Your task to perform on an android device: Go to Android settings Image 0: 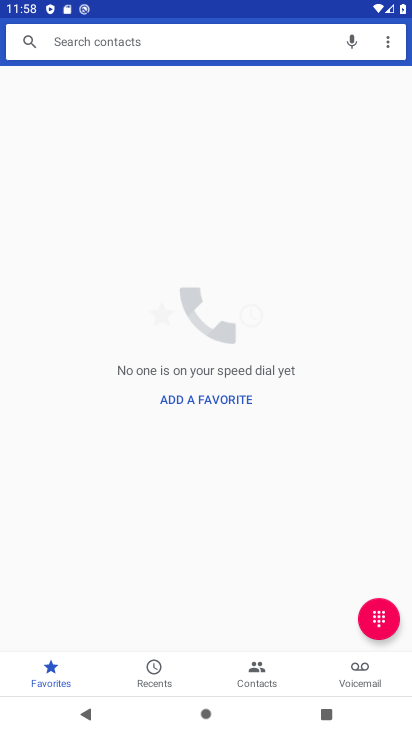
Step 0: press home button
Your task to perform on an android device: Go to Android settings Image 1: 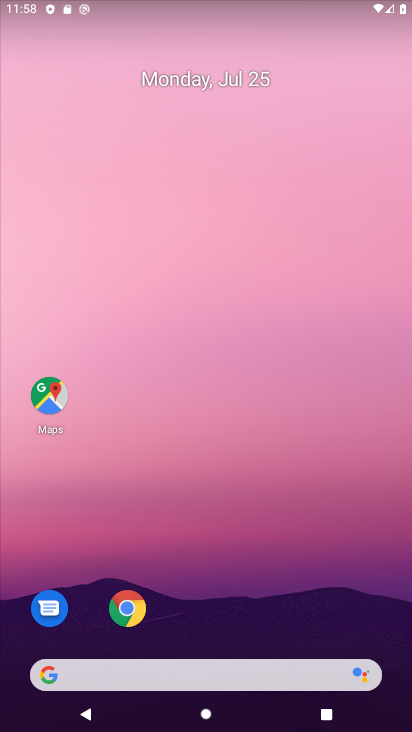
Step 1: drag from (185, 632) to (226, 7)
Your task to perform on an android device: Go to Android settings Image 2: 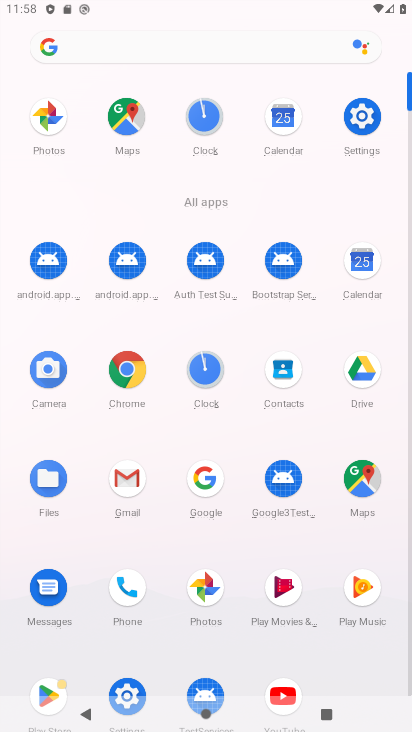
Step 2: drag from (132, 628) to (154, 418)
Your task to perform on an android device: Go to Android settings Image 3: 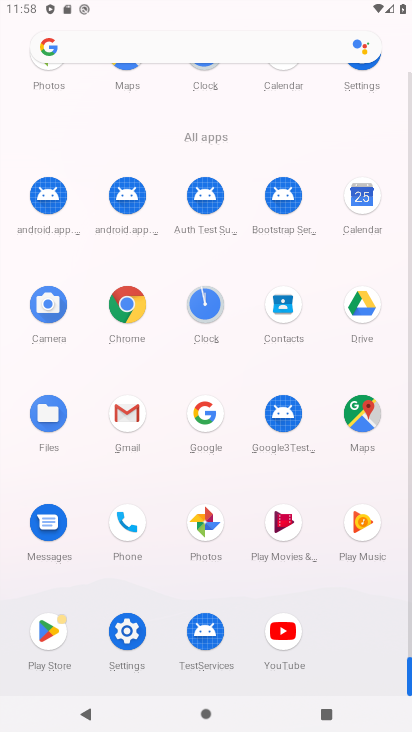
Step 3: click (121, 638)
Your task to perform on an android device: Go to Android settings Image 4: 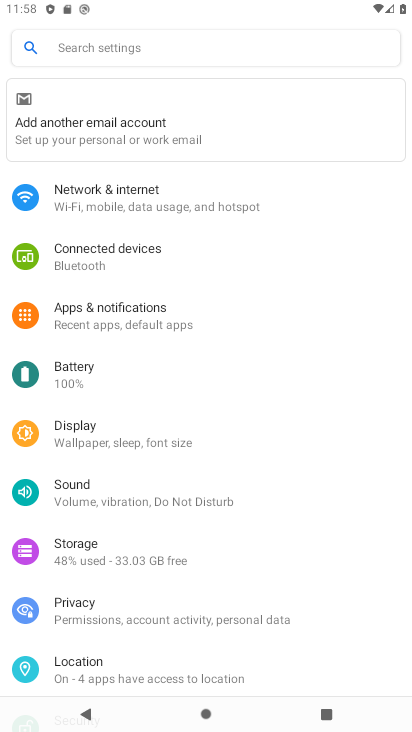
Step 4: drag from (168, 569) to (222, 125)
Your task to perform on an android device: Go to Android settings Image 5: 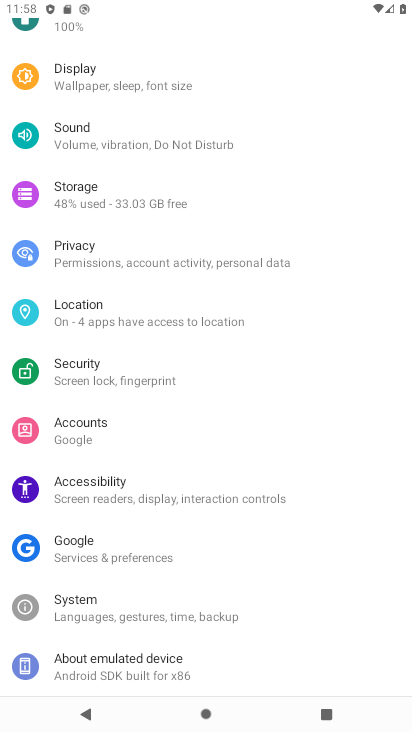
Step 5: click (121, 656)
Your task to perform on an android device: Go to Android settings Image 6: 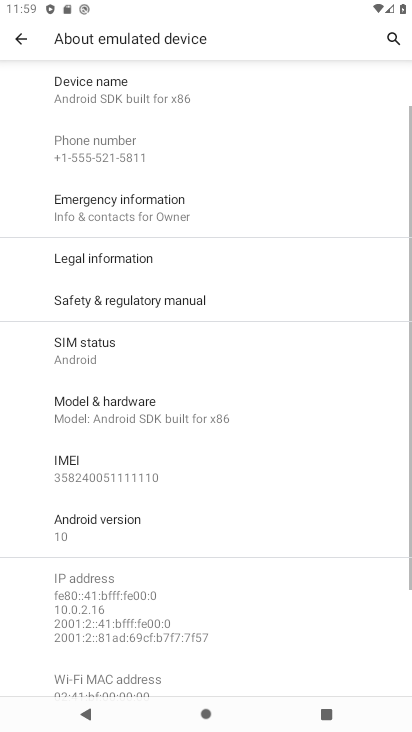
Step 6: drag from (242, 460) to (257, 218)
Your task to perform on an android device: Go to Android settings Image 7: 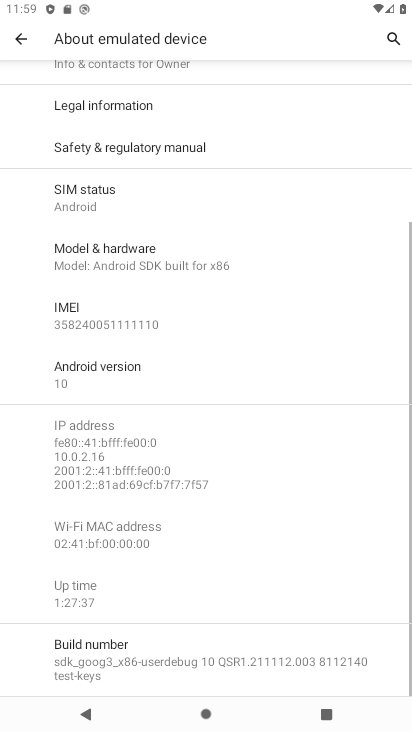
Step 7: click (127, 431)
Your task to perform on an android device: Go to Android settings Image 8: 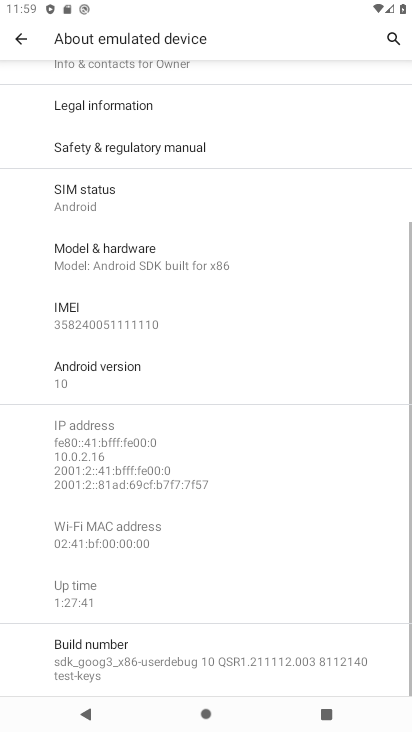
Step 8: click (115, 383)
Your task to perform on an android device: Go to Android settings Image 9: 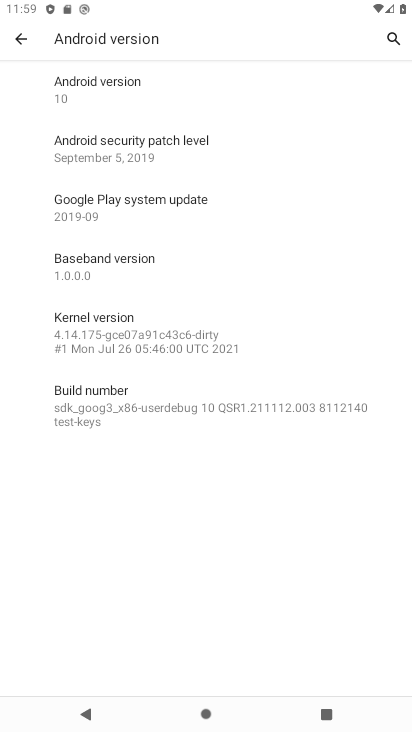
Step 9: task complete